Your task to perform on an android device: turn off data saver in the chrome app Image 0: 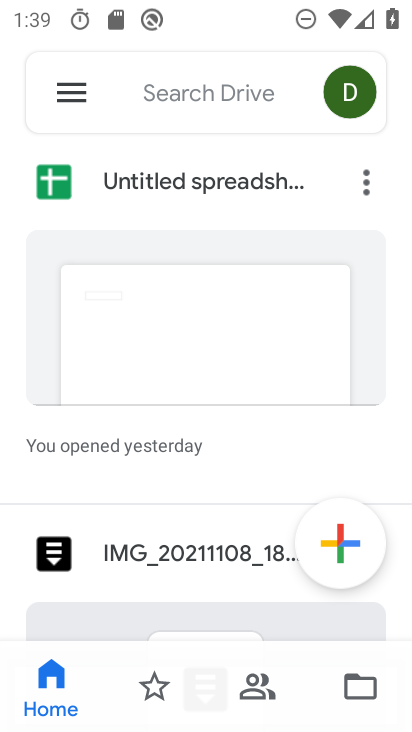
Step 0: press home button
Your task to perform on an android device: turn off data saver in the chrome app Image 1: 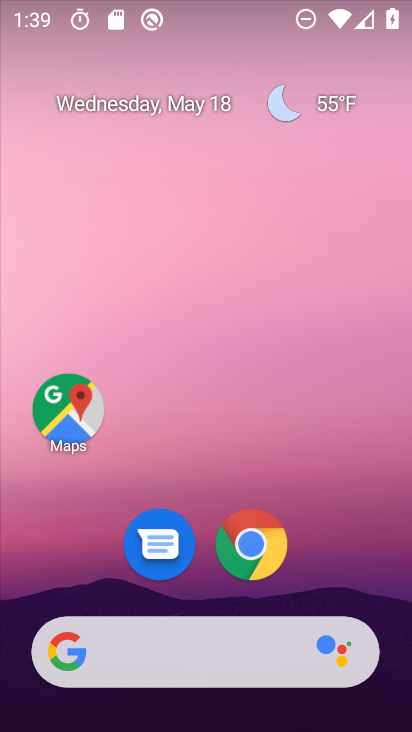
Step 1: click (269, 563)
Your task to perform on an android device: turn off data saver in the chrome app Image 2: 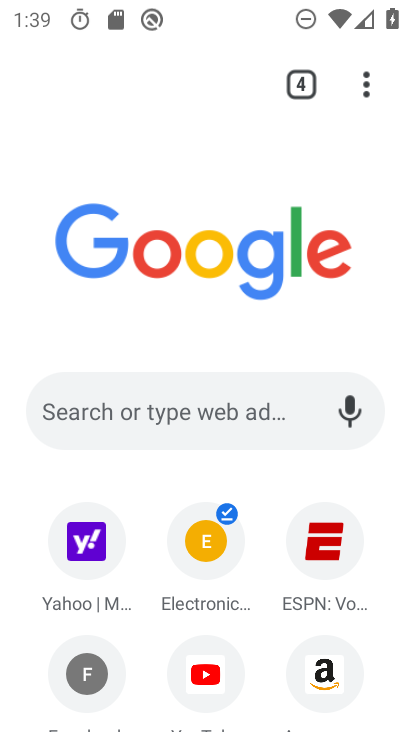
Step 2: click (365, 75)
Your task to perform on an android device: turn off data saver in the chrome app Image 3: 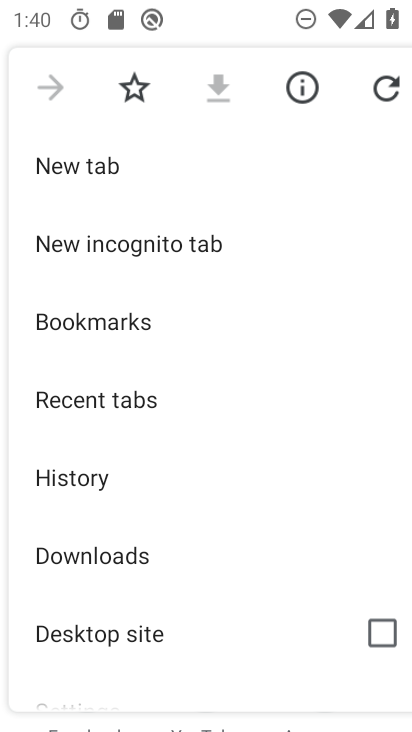
Step 3: drag from (230, 586) to (245, 173)
Your task to perform on an android device: turn off data saver in the chrome app Image 4: 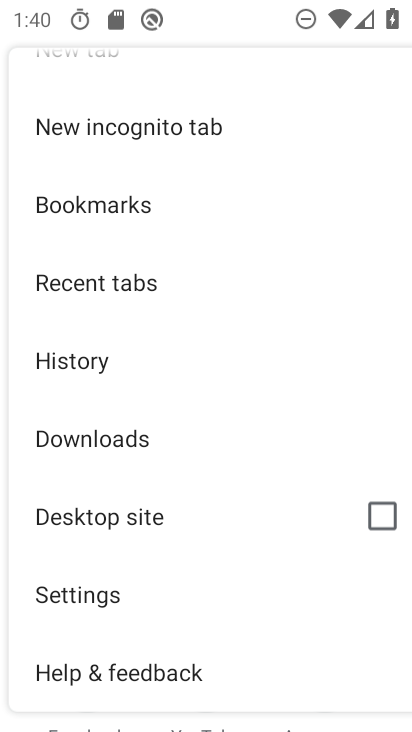
Step 4: click (144, 597)
Your task to perform on an android device: turn off data saver in the chrome app Image 5: 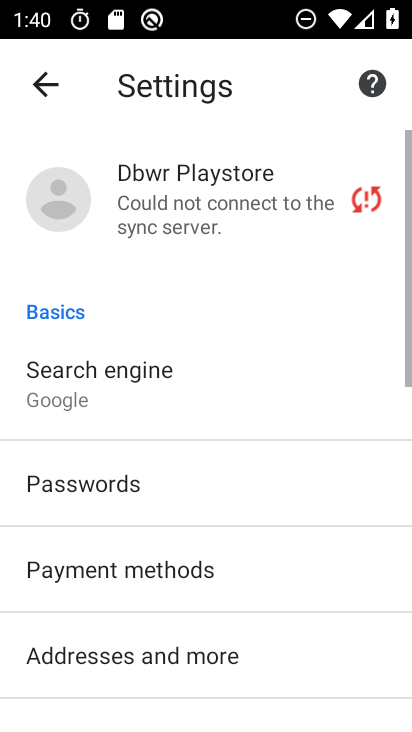
Step 5: drag from (208, 601) to (272, 143)
Your task to perform on an android device: turn off data saver in the chrome app Image 6: 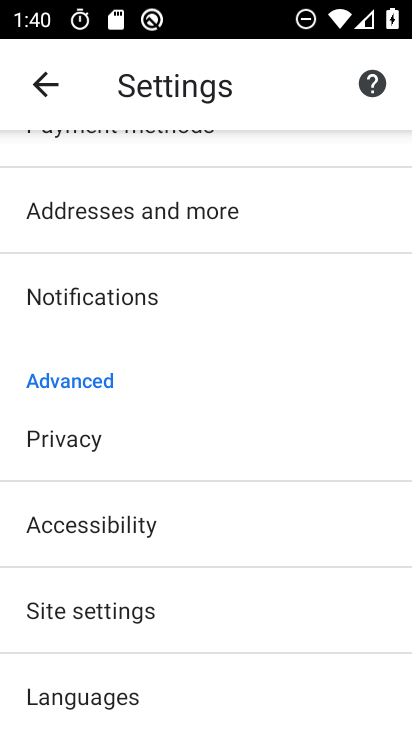
Step 6: drag from (204, 660) to (234, 251)
Your task to perform on an android device: turn off data saver in the chrome app Image 7: 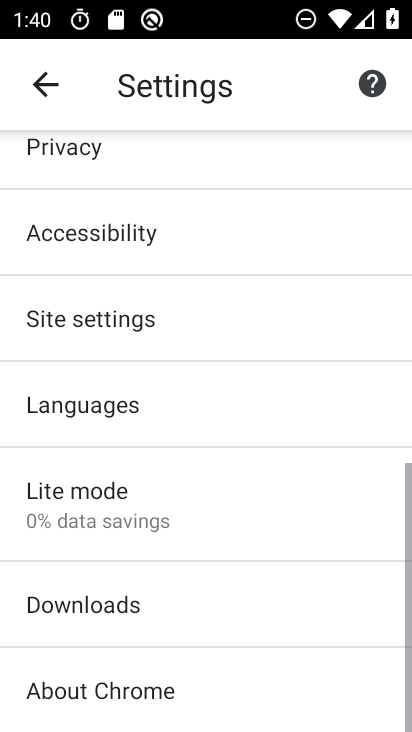
Step 7: click (156, 513)
Your task to perform on an android device: turn off data saver in the chrome app Image 8: 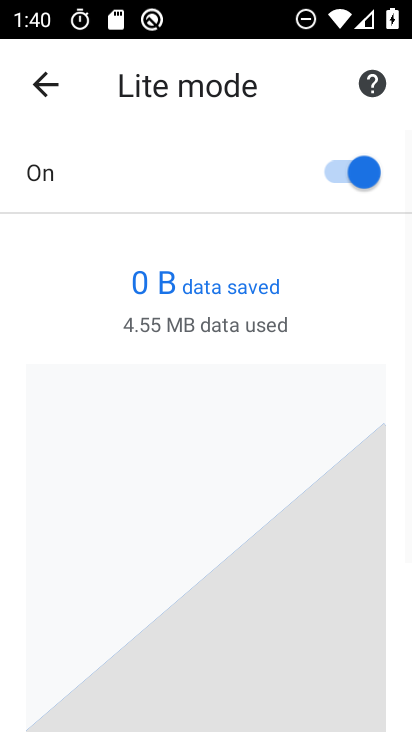
Step 8: click (335, 174)
Your task to perform on an android device: turn off data saver in the chrome app Image 9: 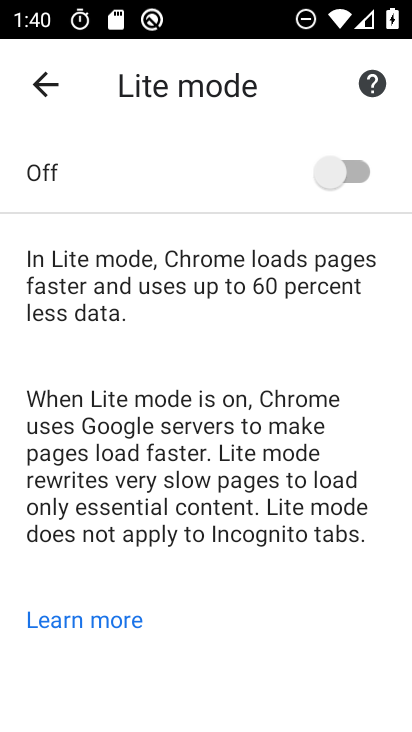
Step 9: task complete